Your task to perform on an android device: Do I have any events today? Image 0: 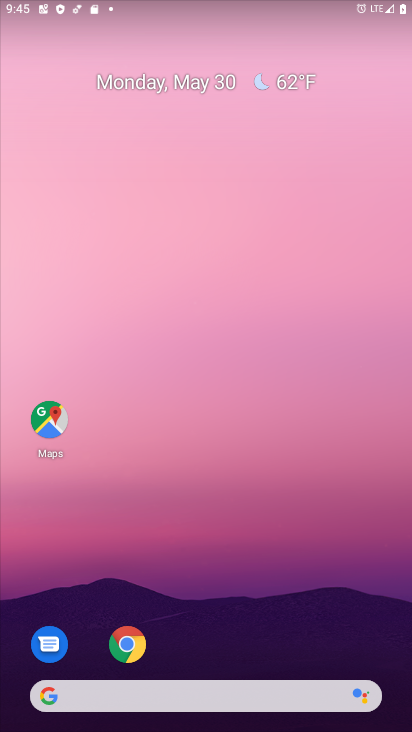
Step 0: drag from (380, 655) to (312, 99)
Your task to perform on an android device: Do I have any events today? Image 1: 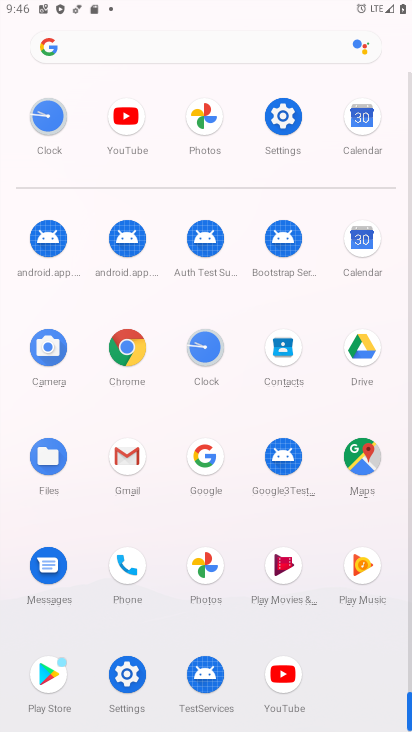
Step 1: click (359, 242)
Your task to perform on an android device: Do I have any events today? Image 2: 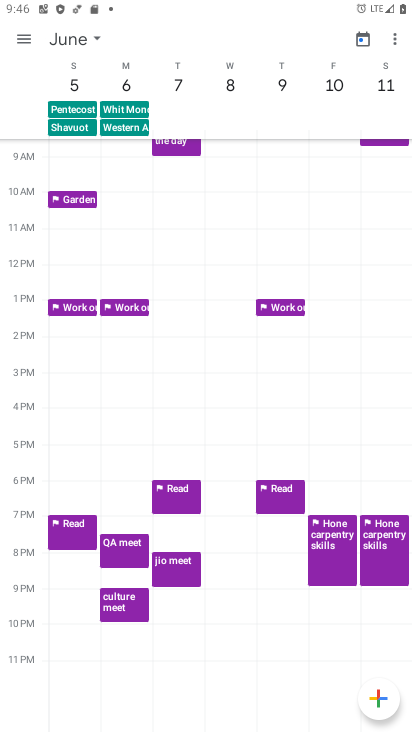
Step 2: click (89, 34)
Your task to perform on an android device: Do I have any events today? Image 3: 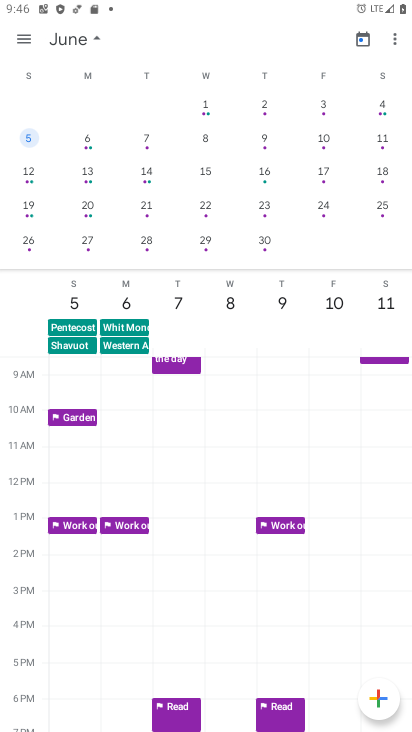
Step 3: click (13, 35)
Your task to perform on an android device: Do I have any events today? Image 4: 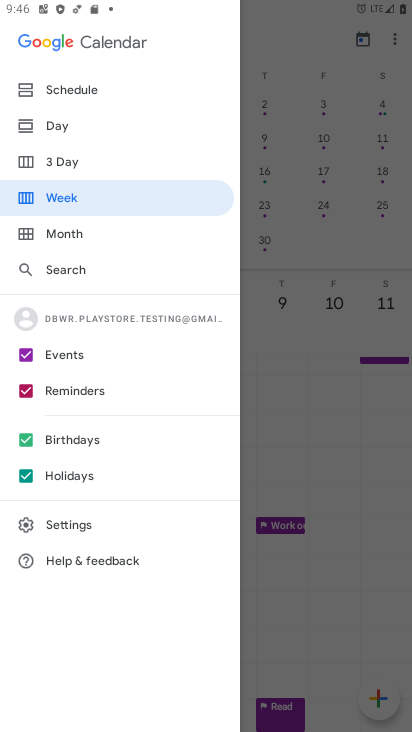
Step 4: click (54, 117)
Your task to perform on an android device: Do I have any events today? Image 5: 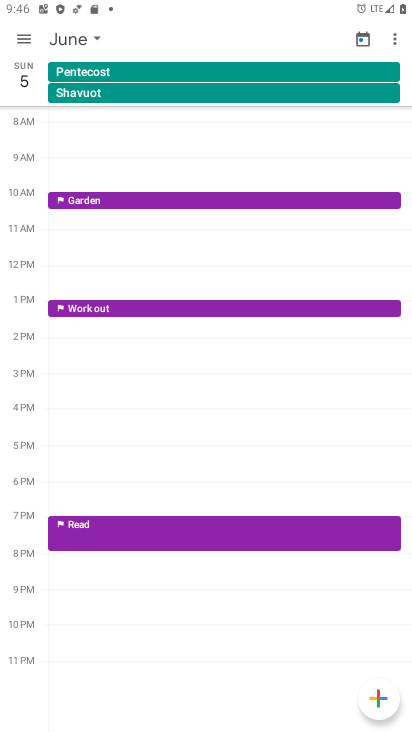
Step 5: click (93, 29)
Your task to perform on an android device: Do I have any events today? Image 6: 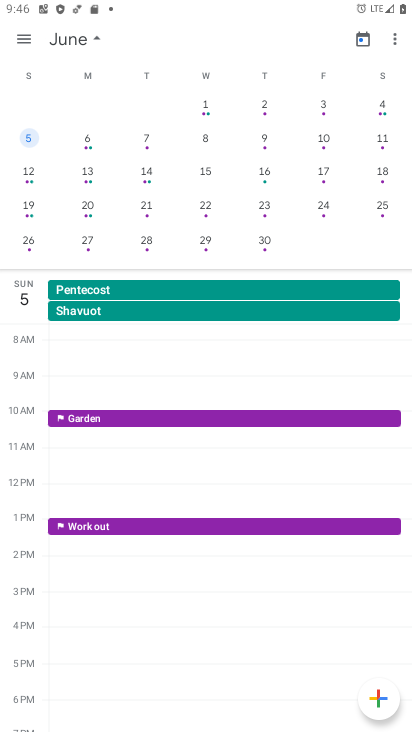
Step 6: drag from (17, 204) to (403, 148)
Your task to perform on an android device: Do I have any events today? Image 7: 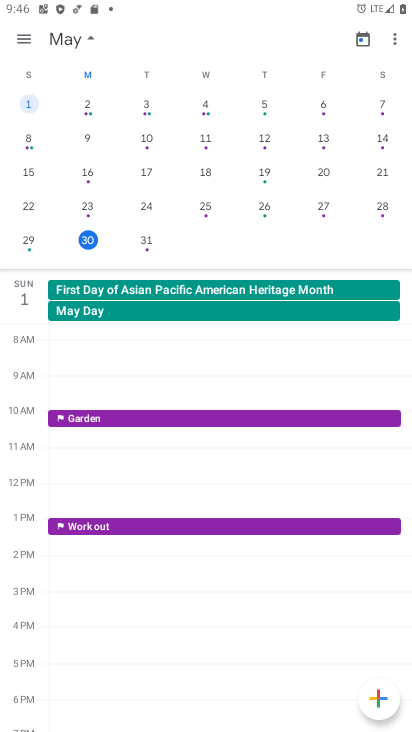
Step 7: click (93, 237)
Your task to perform on an android device: Do I have any events today? Image 8: 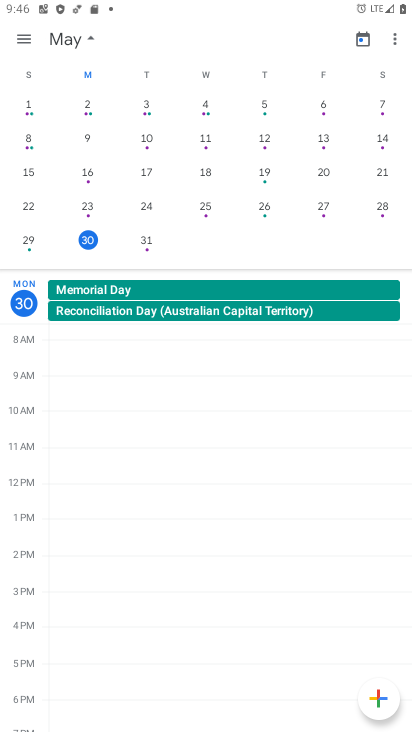
Step 8: task complete